Your task to perform on an android device: change the clock display to show seconds Image 0: 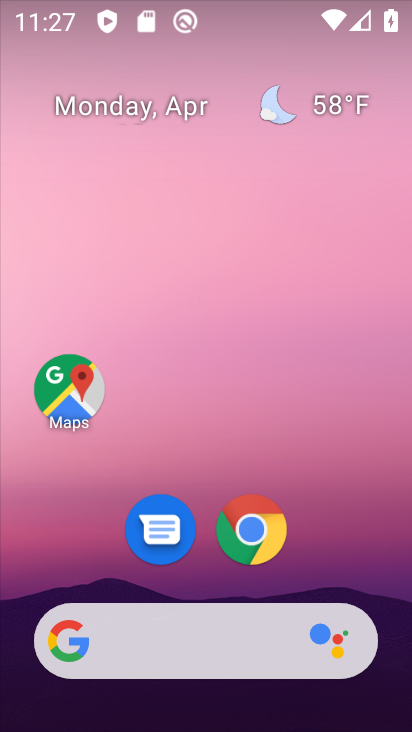
Step 0: drag from (363, 592) to (274, 19)
Your task to perform on an android device: change the clock display to show seconds Image 1: 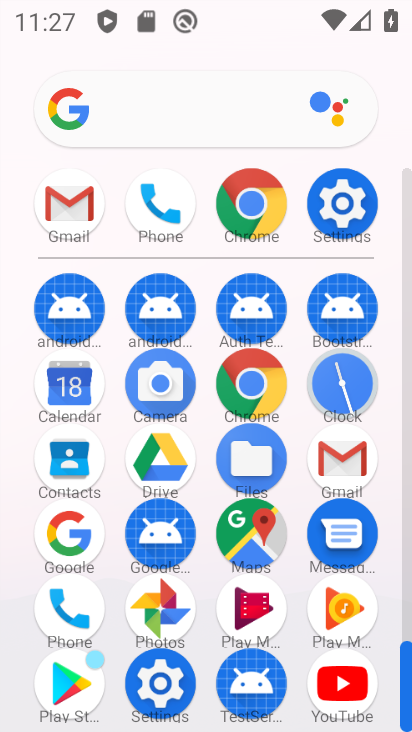
Step 1: click (323, 385)
Your task to perform on an android device: change the clock display to show seconds Image 2: 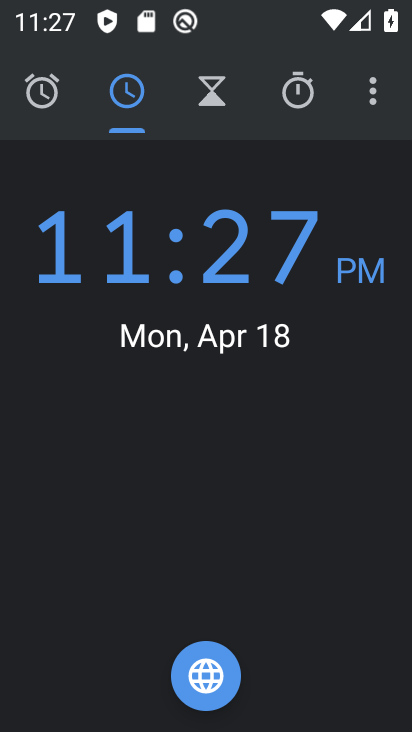
Step 2: click (376, 97)
Your task to perform on an android device: change the clock display to show seconds Image 3: 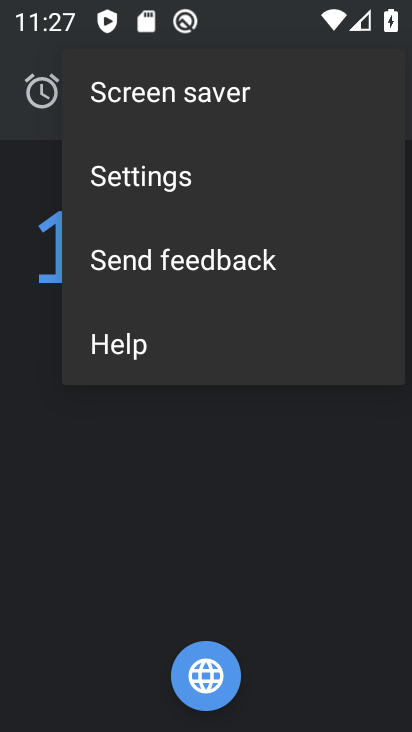
Step 3: click (198, 178)
Your task to perform on an android device: change the clock display to show seconds Image 4: 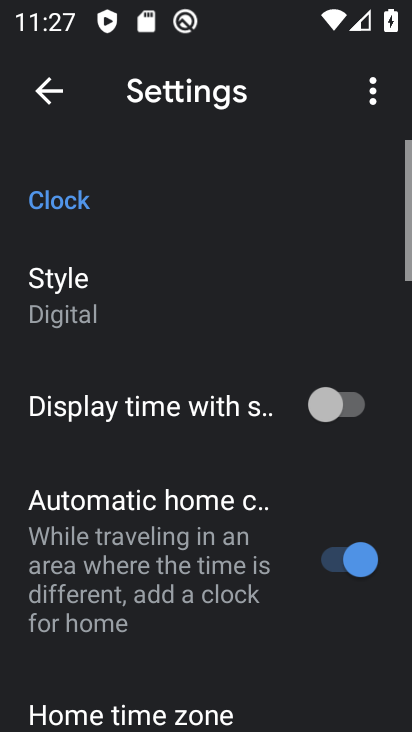
Step 4: click (306, 414)
Your task to perform on an android device: change the clock display to show seconds Image 5: 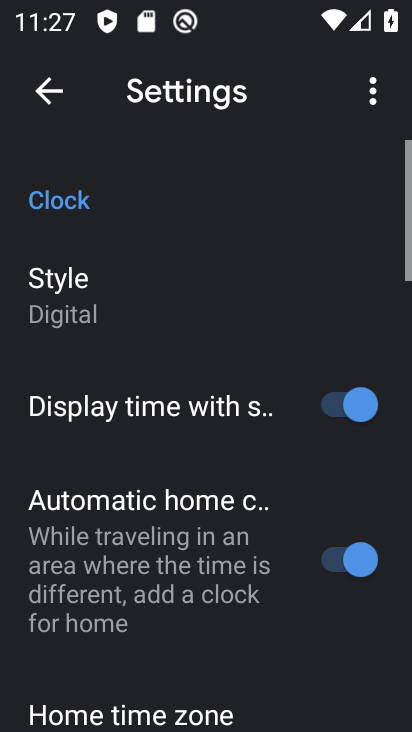
Step 5: task complete